Your task to perform on an android device: Go to wifi settings Image 0: 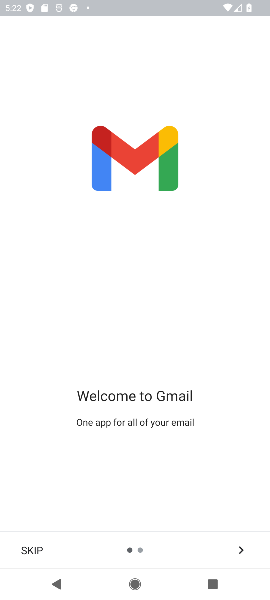
Step 0: press home button
Your task to perform on an android device: Go to wifi settings Image 1: 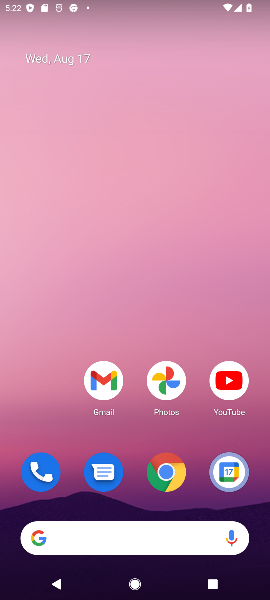
Step 1: drag from (125, 426) to (132, 133)
Your task to perform on an android device: Go to wifi settings Image 2: 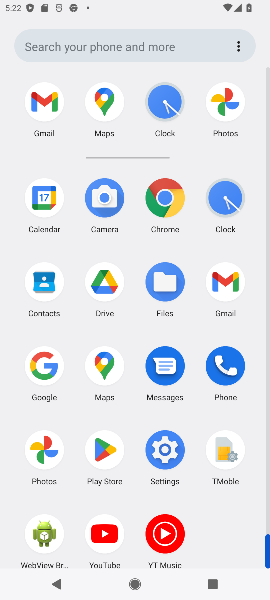
Step 2: click (158, 459)
Your task to perform on an android device: Go to wifi settings Image 3: 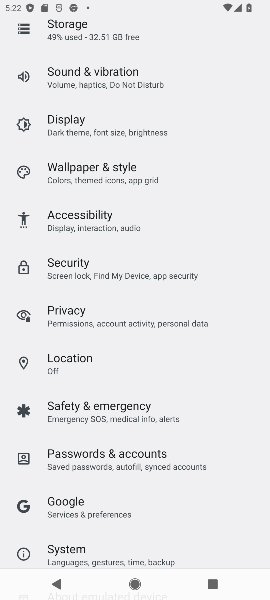
Step 3: drag from (79, 165) to (134, 540)
Your task to perform on an android device: Go to wifi settings Image 4: 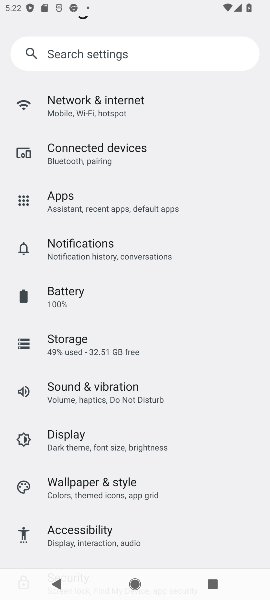
Step 4: click (88, 97)
Your task to perform on an android device: Go to wifi settings Image 5: 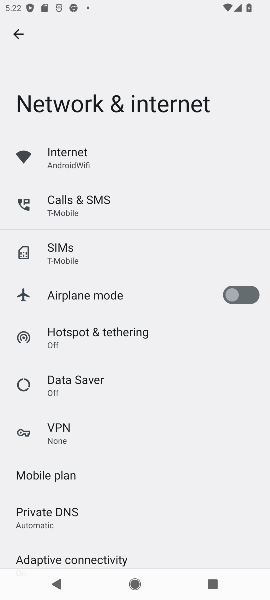
Step 5: click (70, 148)
Your task to perform on an android device: Go to wifi settings Image 6: 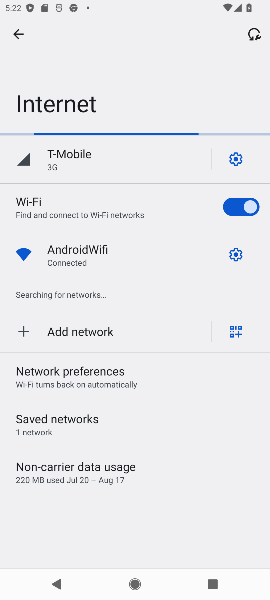
Step 6: task complete